Your task to perform on an android device: turn off javascript in the chrome app Image 0: 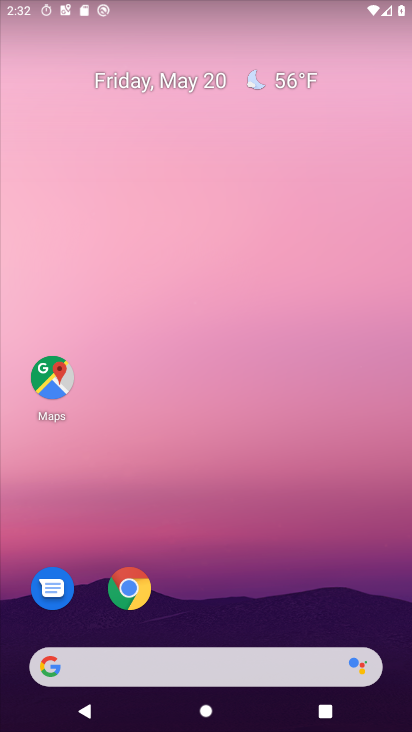
Step 0: click (125, 599)
Your task to perform on an android device: turn off javascript in the chrome app Image 1: 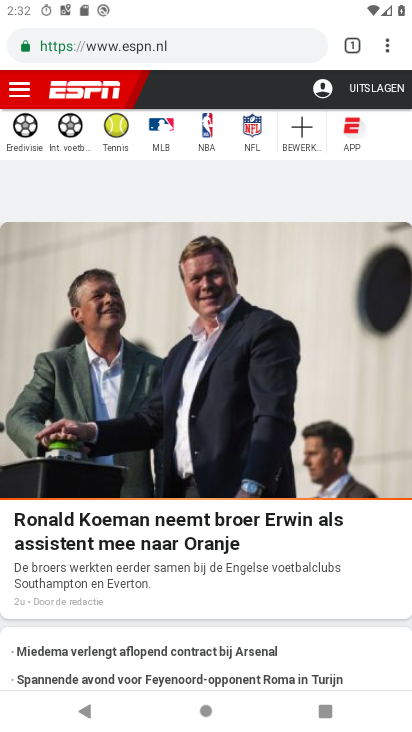
Step 1: click (388, 47)
Your task to perform on an android device: turn off javascript in the chrome app Image 2: 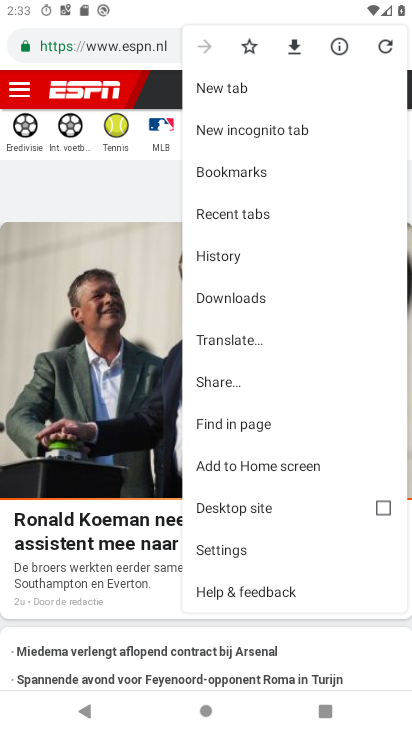
Step 2: click (225, 542)
Your task to perform on an android device: turn off javascript in the chrome app Image 3: 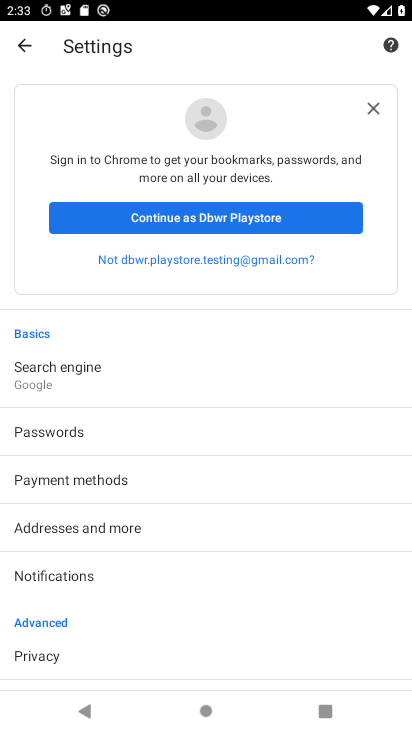
Step 3: drag from (48, 661) to (238, 227)
Your task to perform on an android device: turn off javascript in the chrome app Image 4: 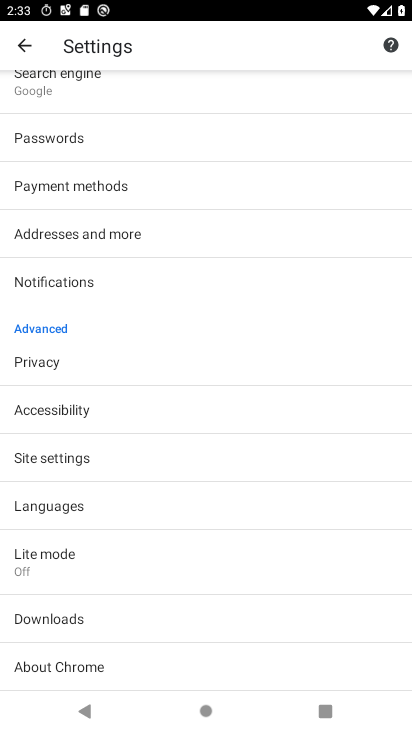
Step 4: click (107, 452)
Your task to perform on an android device: turn off javascript in the chrome app Image 5: 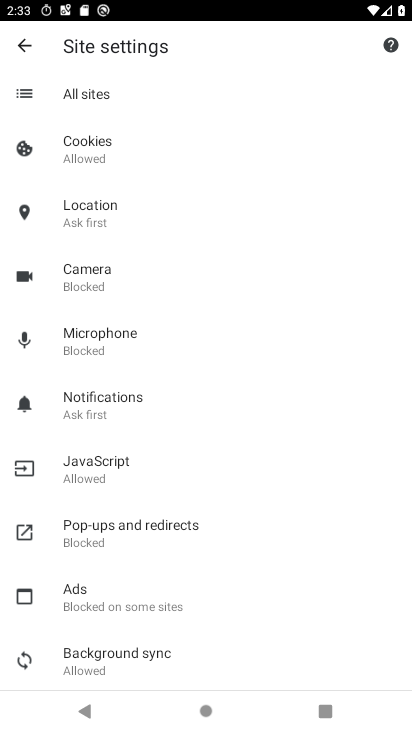
Step 5: click (106, 454)
Your task to perform on an android device: turn off javascript in the chrome app Image 6: 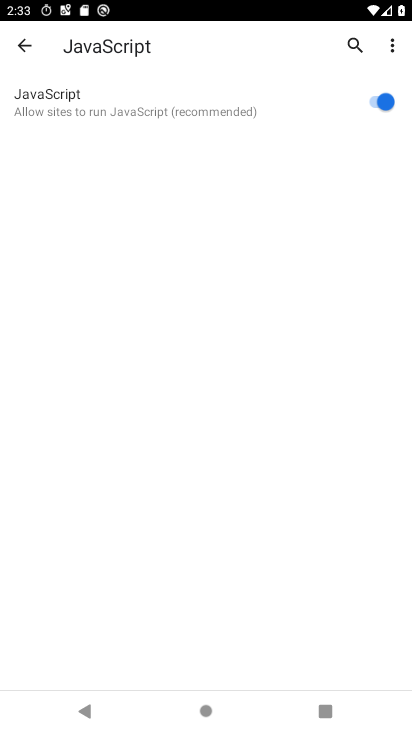
Step 6: click (386, 108)
Your task to perform on an android device: turn off javascript in the chrome app Image 7: 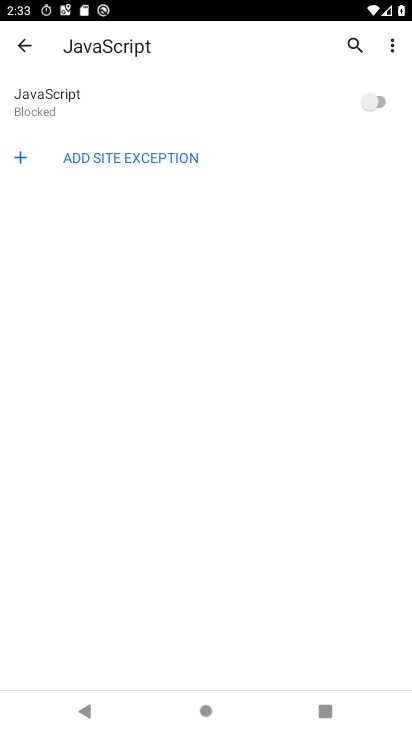
Step 7: task complete